Your task to perform on an android device: turn on the 12-hour format for clock Image 0: 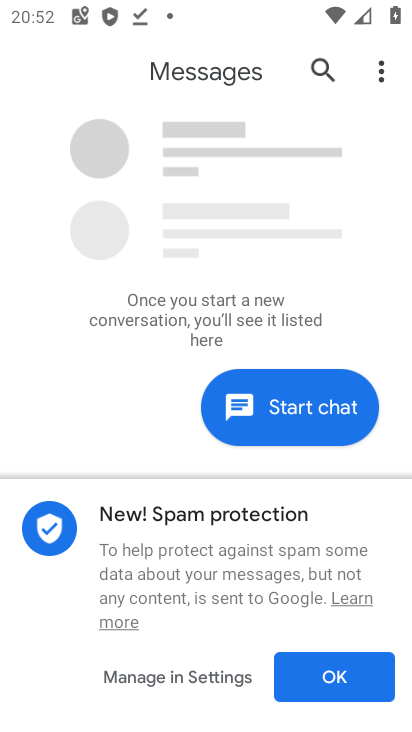
Step 0: press back button
Your task to perform on an android device: turn on the 12-hour format for clock Image 1: 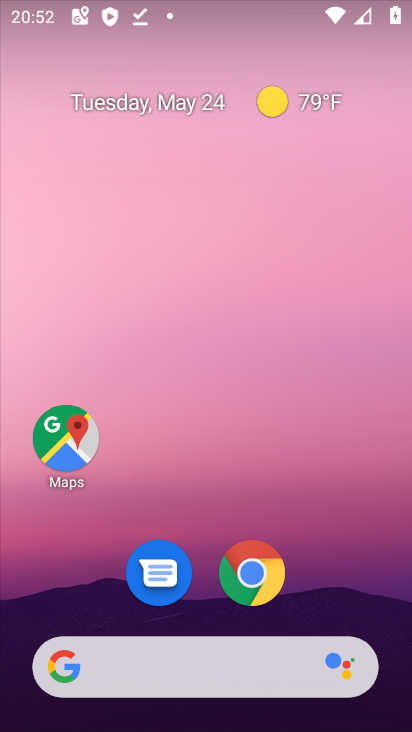
Step 1: drag from (231, 455) to (210, 293)
Your task to perform on an android device: turn on the 12-hour format for clock Image 2: 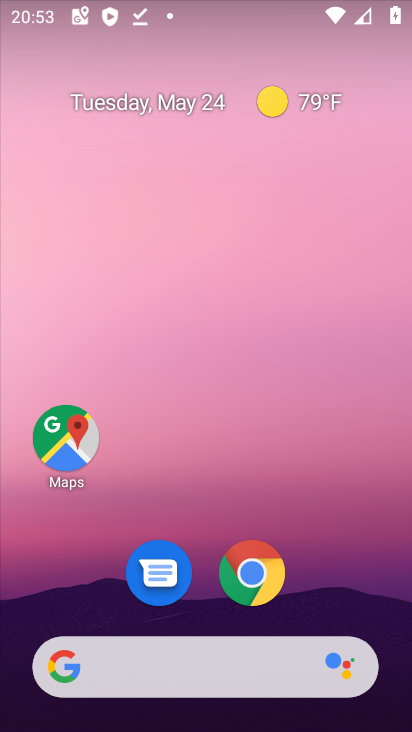
Step 2: drag from (337, 686) to (287, 214)
Your task to perform on an android device: turn on the 12-hour format for clock Image 3: 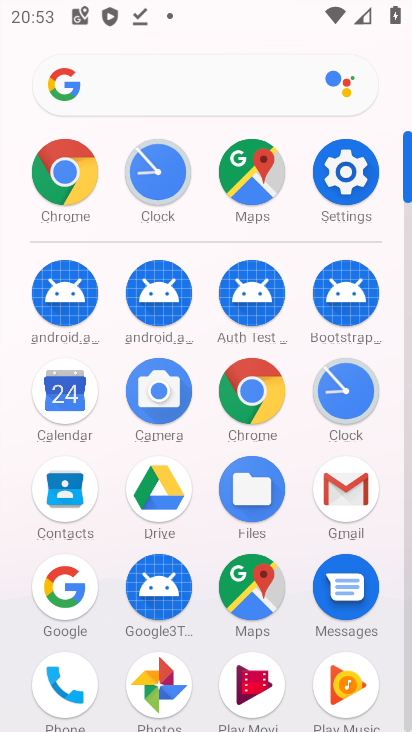
Step 3: click (318, 387)
Your task to perform on an android device: turn on the 12-hour format for clock Image 4: 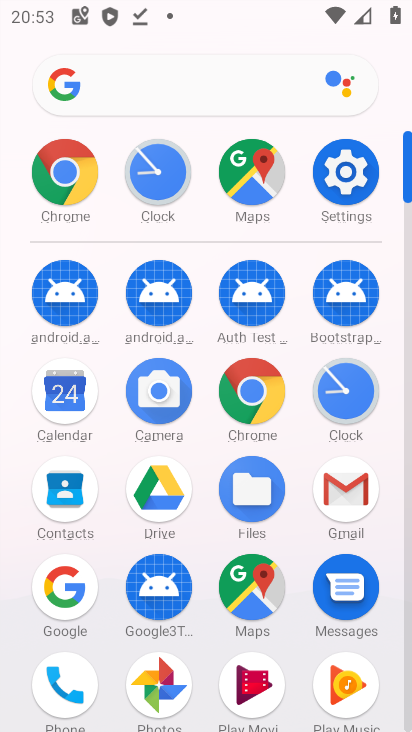
Step 4: click (334, 383)
Your task to perform on an android device: turn on the 12-hour format for clock Image 5: 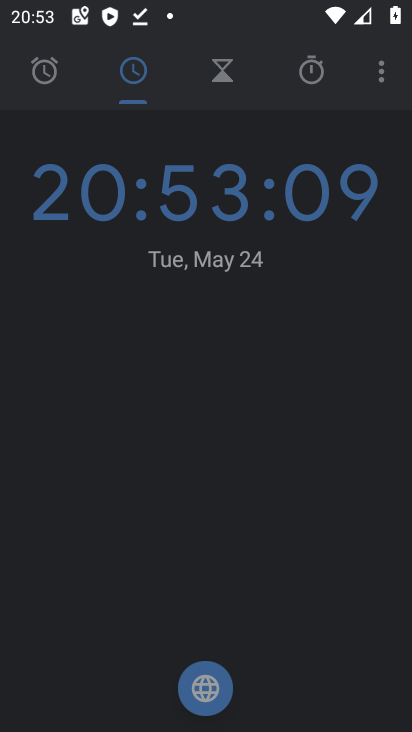
Step 5: click (337, 381)
Your task to perform on an android device: turn on the 12-hour format for clock Image 6: 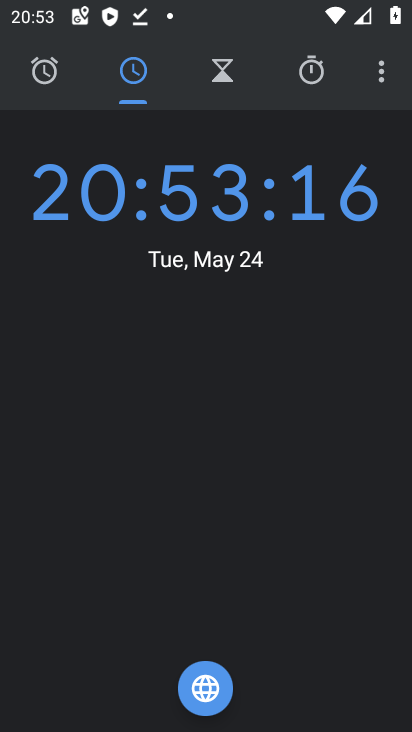
Step 6: click (375, 69)
Your task to perform on an android device: turn on the 12-hour format for clock Image 7: 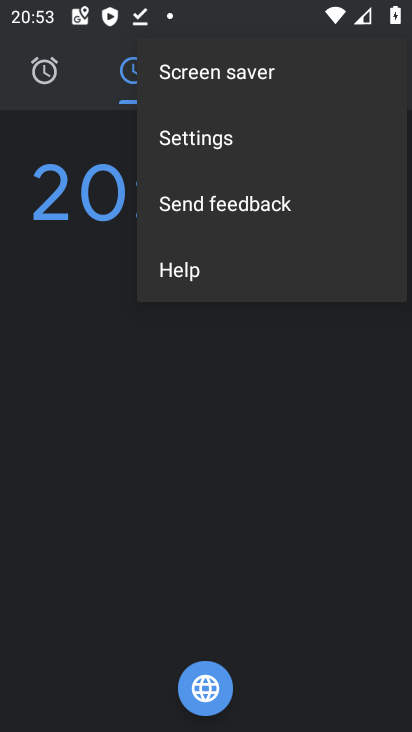
Step 7: click (214, 149)
Your task to perform on an android device: turn on the 12-hour format for clock Image 8: 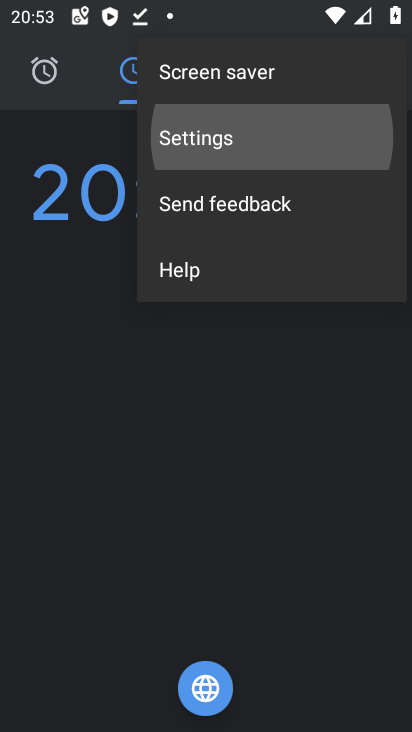
Step 8: click (211, 144)
Your task to perform on an android device: turn on the 12-hour format for clock Image 9: 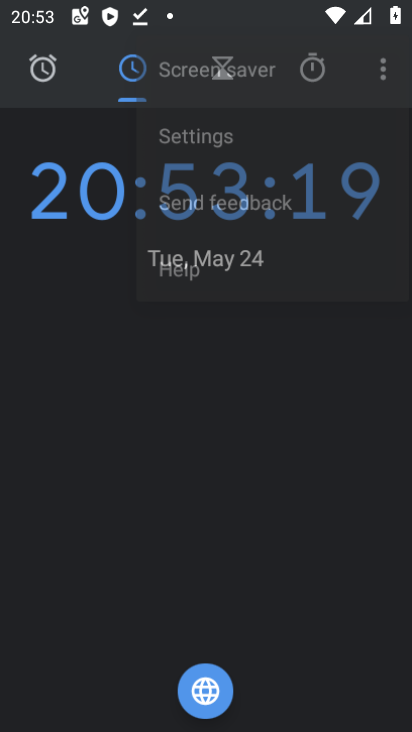
Step 9: click (211, 144)
Your task to perform on an android device: turn on the 12-hour format for clock Image 10: 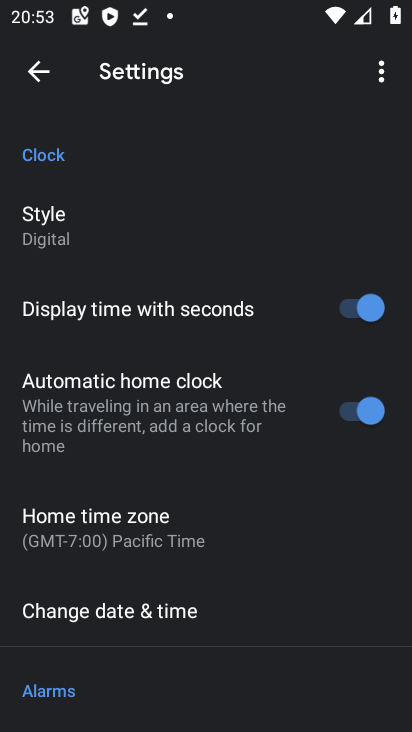
Step 10: click (105, 609)
Your task to perform on an android device: turn on the 12-hour format for clock Image 11: 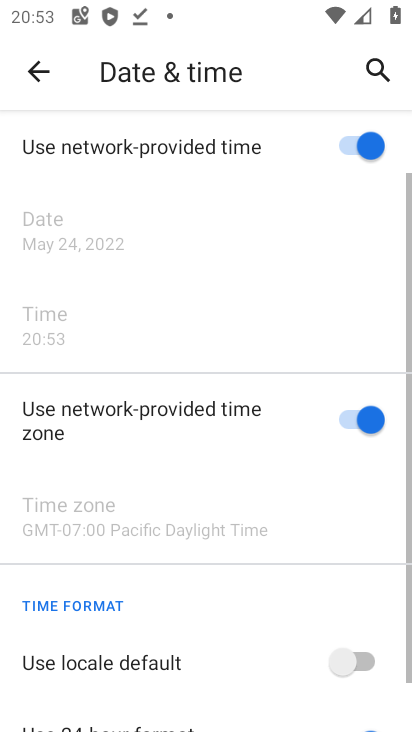
Step 11: drag from (179, 668) to (152, 397)
Your task to perform on an android device: turn on the 12-hour format for clock Image 12: 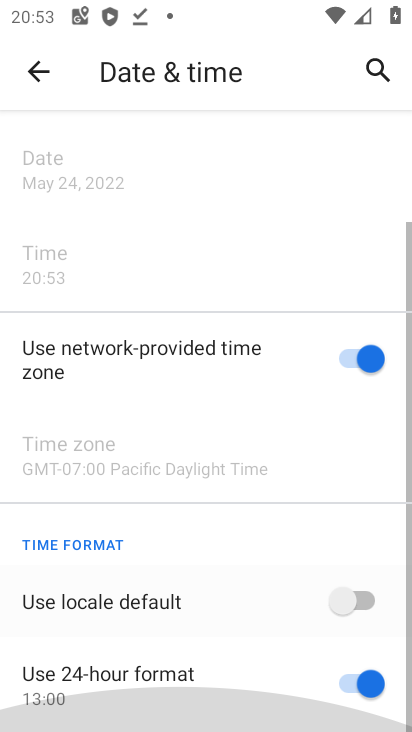
Step 12: drag from (240, 673) to (273, 372)
Your task to perform on an android device: turn on the 12-hour format for clock Image 13: 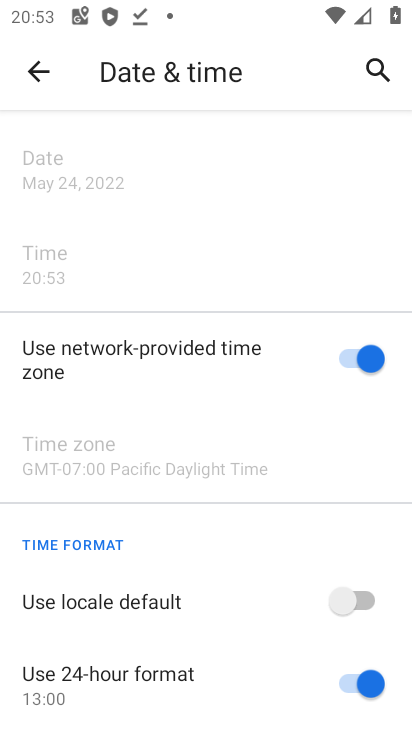
Step 13: click (368, 684)
Your task to perform on an android device: turn on the 12-hour format for clock Image 14: 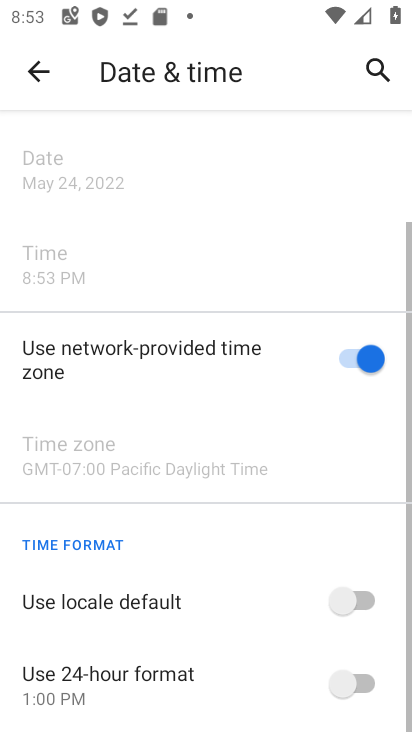
Step 14: click (351, 603)
Your task to perform on an android device: turn on the 12-hour format for clock Image 15: 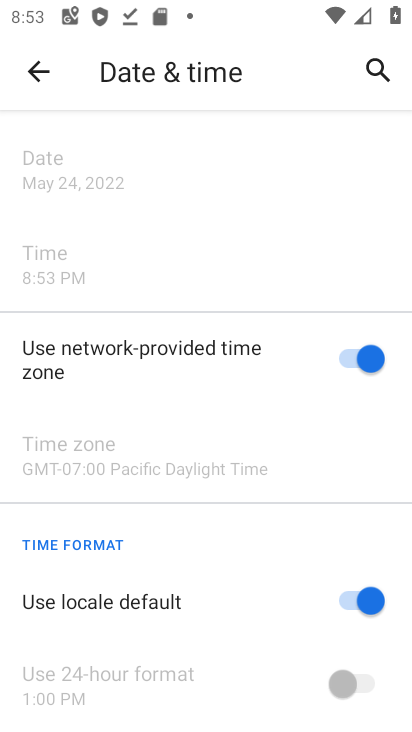
Step 15: task complete